Your task to perform on an android device: turn off notifications settings in the gmail app Image 0: 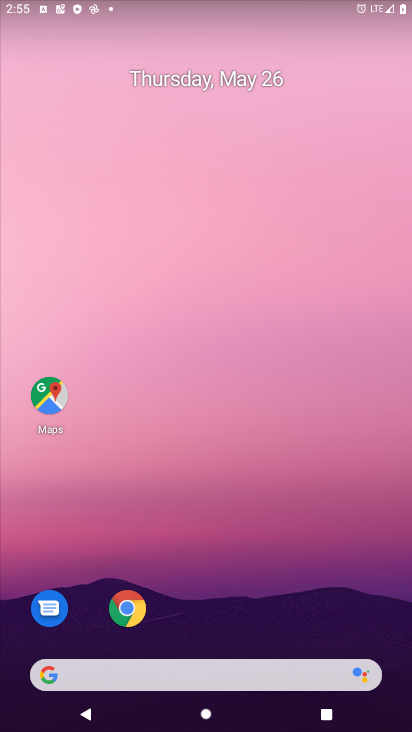
Step 0: drag from (375, 626) to (323, 200)
Your task to perform on an android device: turn off notifications settings in the gmail app Image 1: 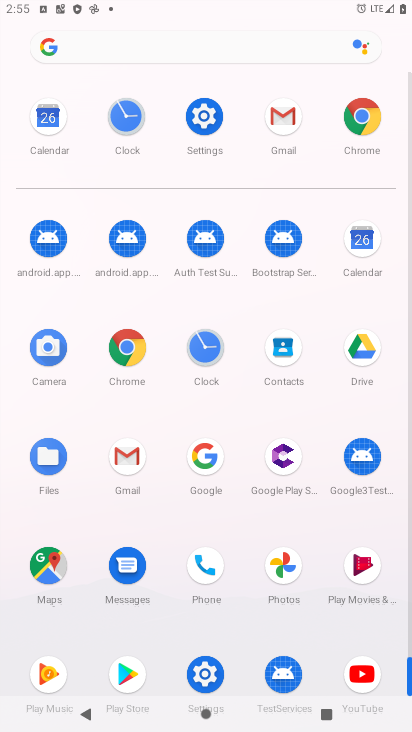
Step 1: click (128, 454)
Your task to perform on an android device: turn off notifications settings in the gmail app Image 2: 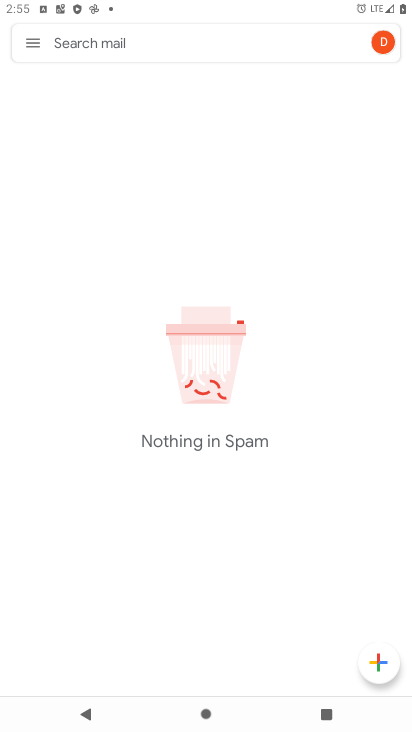
Step 2: press back button
Your task to perform on an android device: turn off notifications settings in the gmail app Image 3: 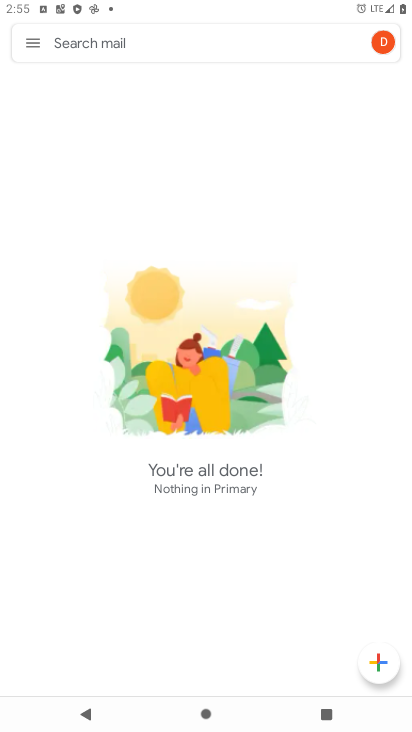
Step 3: click (27, 43)
Your task to perform on an android device: turn off notifications settings in the gmail app Image 4: 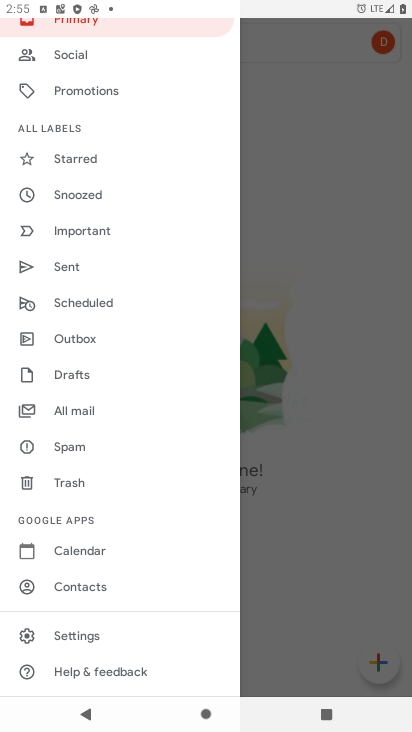
Step 4: click (80, 626)
Your task to perform on an android device: turn off notifications settings in the gmail app Image 5: 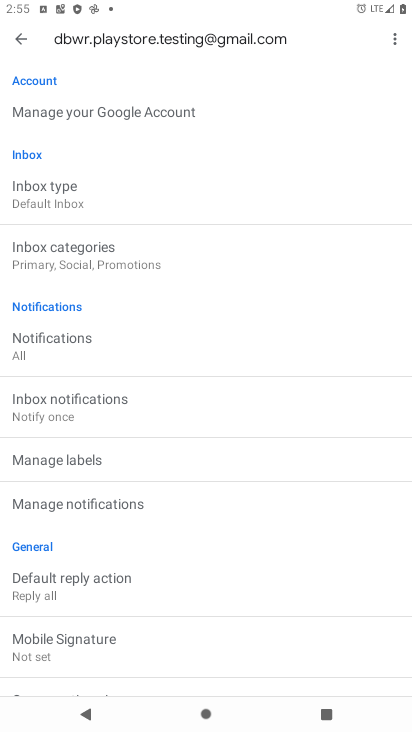
Step 5: click (68, 506)
Your task to perform on an android device: turn off notifications settings in the gmail app Image 6: 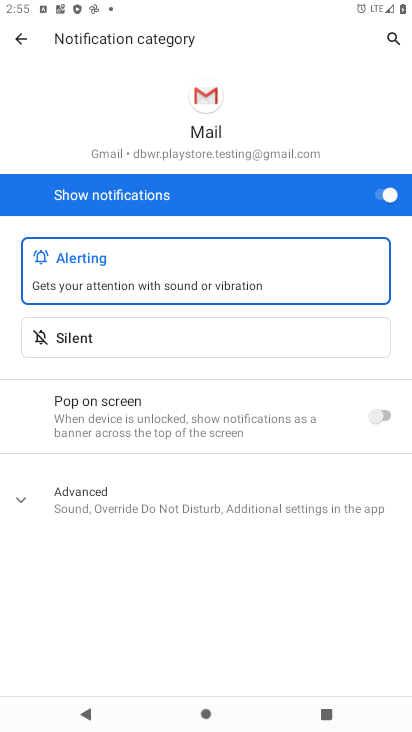
Step 6: click (380, 191)
Your task to perform on an android device: turn off notifications settings in the gmail app Image 7: 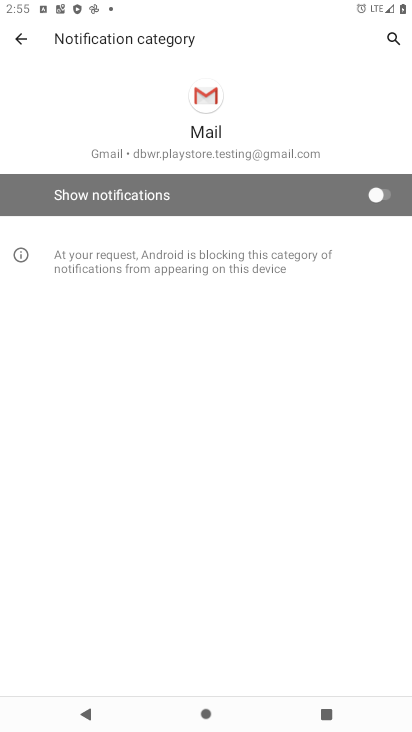
Step 7: task complete